Your task to perform on an android device: Open battery settings Image 0: 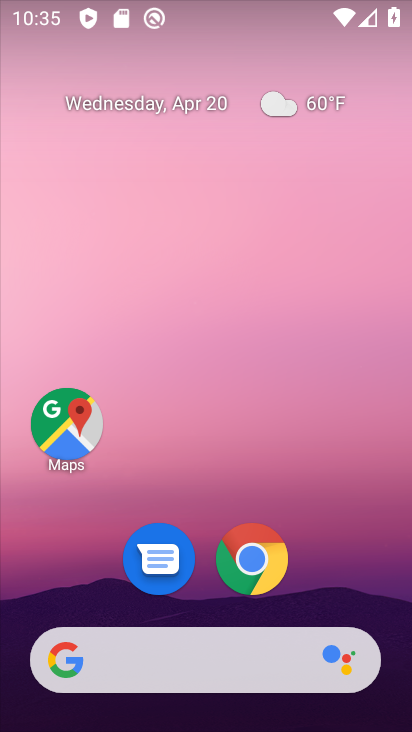
Step 0: drag from (205, 479) to (188, 82)
Your task to perform on an android device: Open battery settings Image 1: 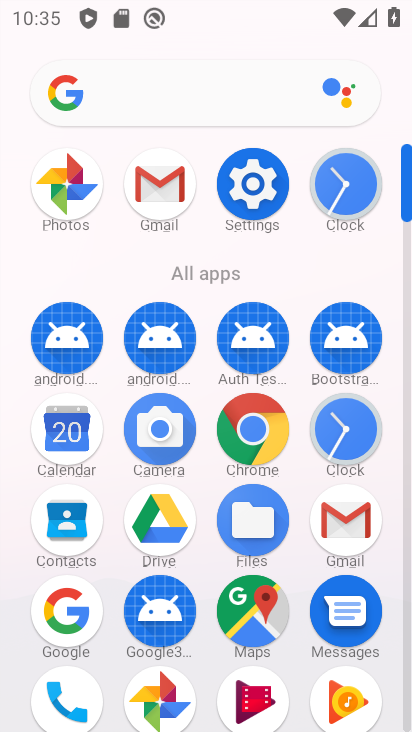
Step 1: click (254, 185)
Your task to perform on an android device: Open battery settings Image 2: 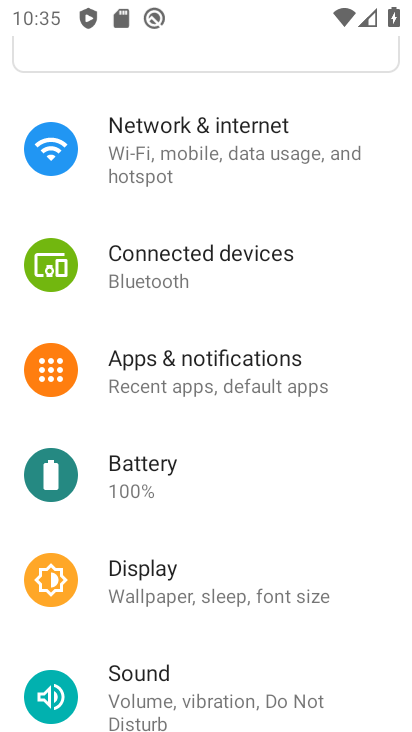
Step 2: click (126, 471)
Your task to perform on an android device: Open battery settings Image 3: 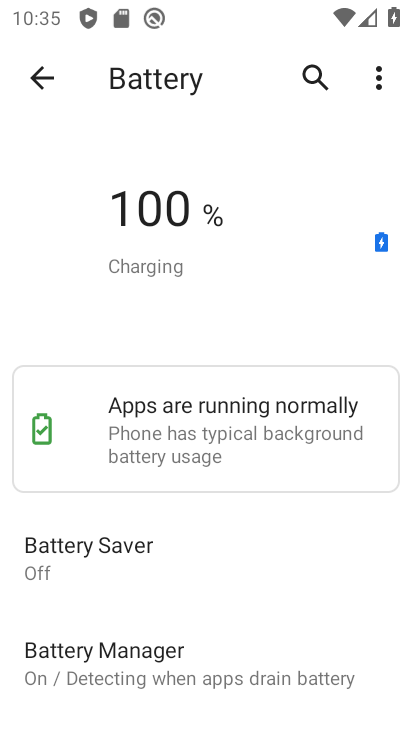
Step 3: task complete